Your task to perform on an android device: change the clock style Image 0: 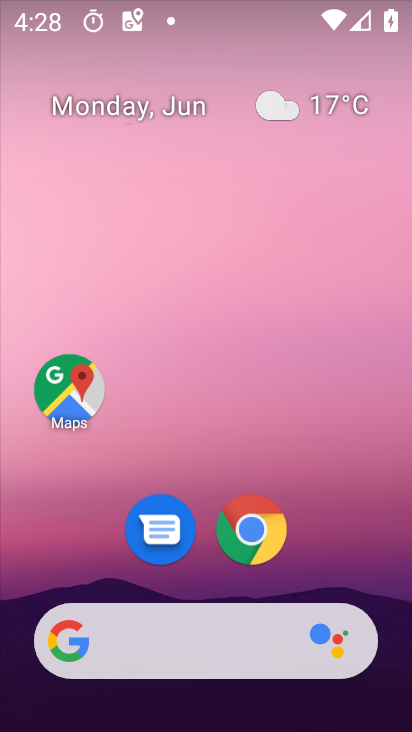
Step 0: drag from (353, 522) to (266, 44)
Your task to perform on an android device: change the clock style Image 1: 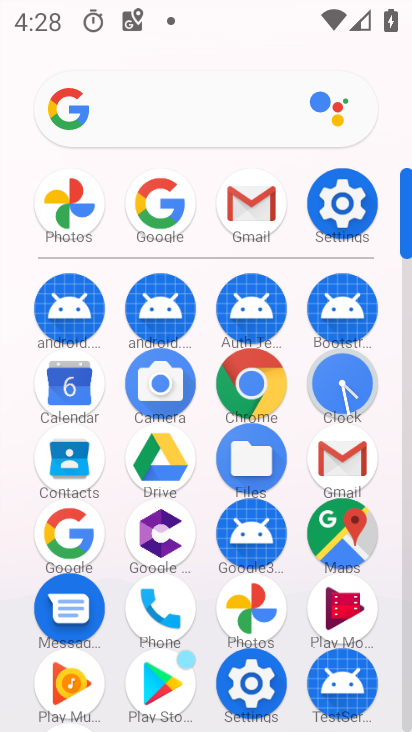
Step 1: click (343, 380)
Your task to perform on an android device: change the clock style Image 2: 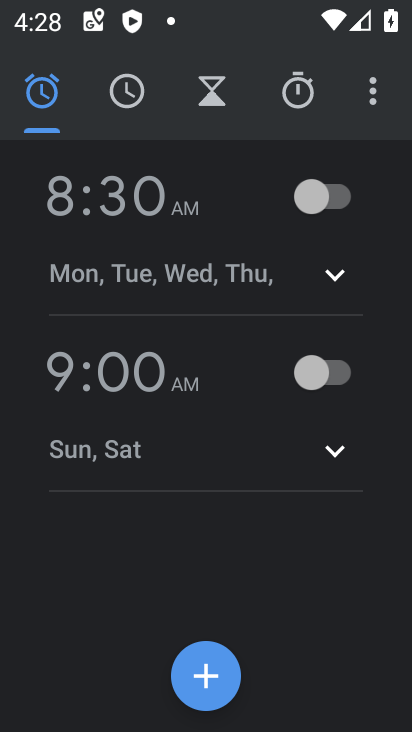
Step 2: click (374, 91)
Your task to perform on an android device: change the clock style Image 3: 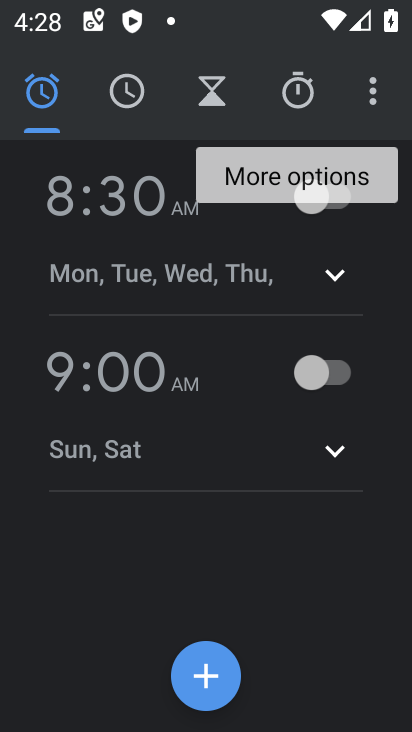
Step 3: click (372, 91)
Your task to perform on an android device: change the clock style Image 4: 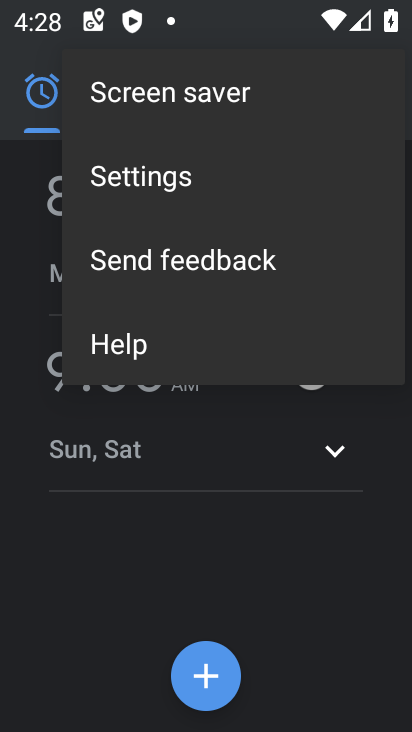
Step 4: click (199, 172)
Your task to perform on an android device: change the clock style Image 5: 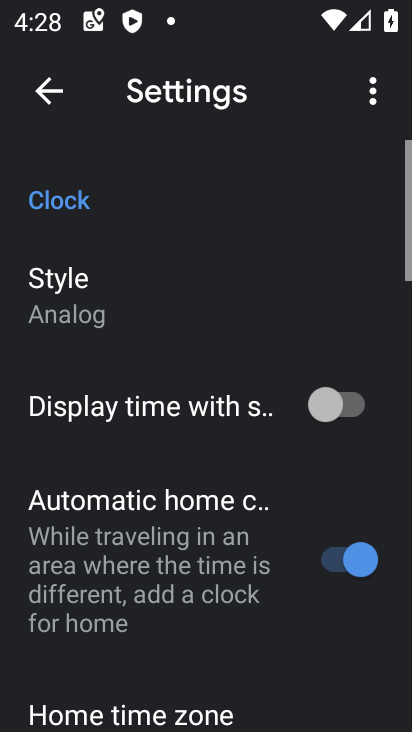
Step 5: click (86, 297)
Your task to perform on an android device: change the clock style Image 6: 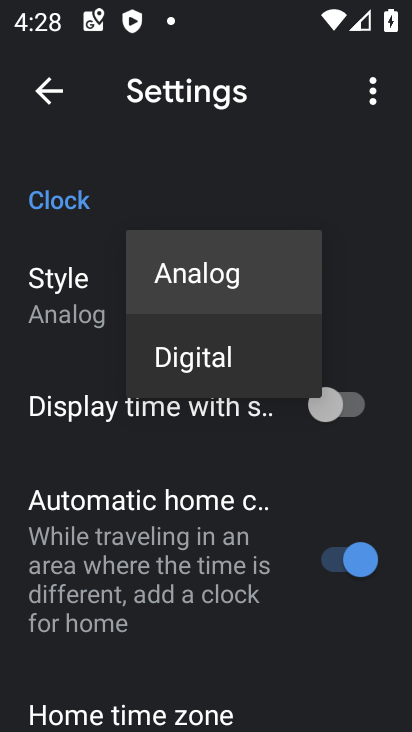
Step 6: click (199, 345)
Your task to perform on an android device: change the clock style Image 7: 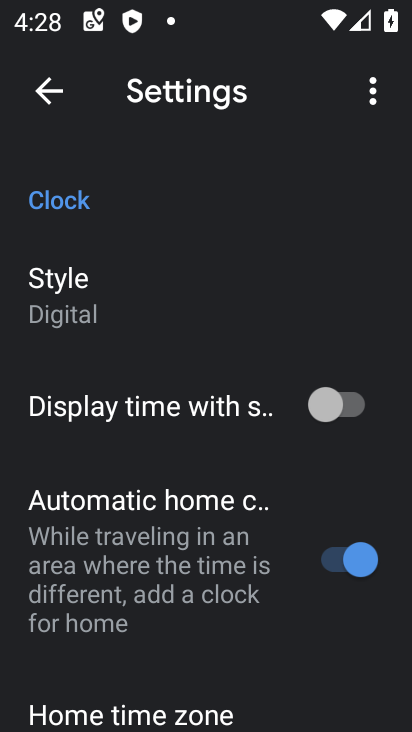
Step 7: task complete